Your task to perform on an android device: toggle show notifications on the lock screen Image 0: 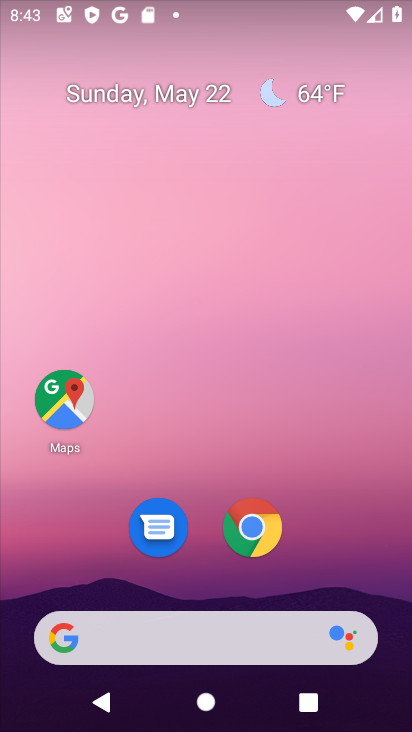
Step 0: drag from (189, 562) to (238, 86)
Your task to perform on an android device: toggle show notifications on the lock screen Image 1: 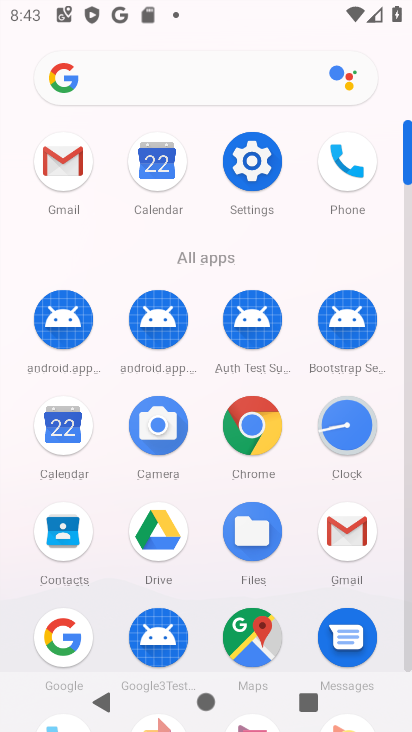
Step 1: click (241, 167)
Your task to perform on an android device: toggle show notifications on the lock screen Image 2: 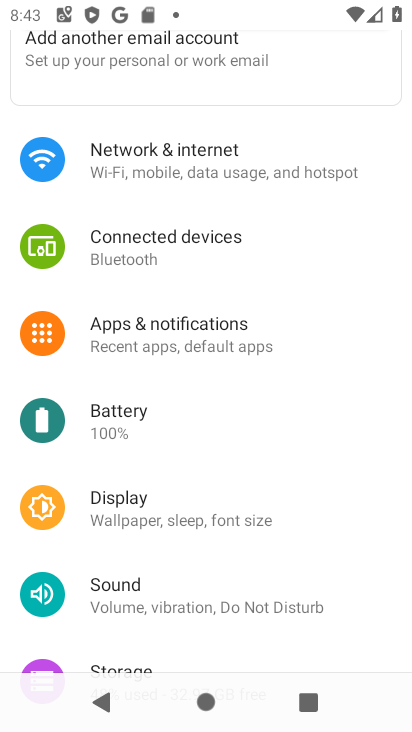
Step 2: click (182, 333)
Your task to perform on an android device: toggle show notifications on the lock screen Image 3: 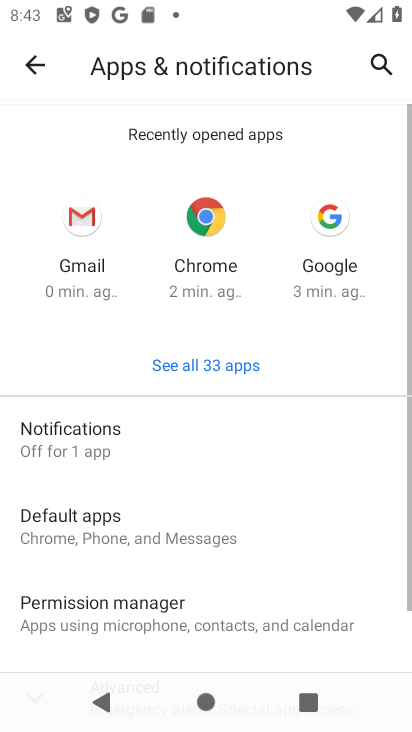
Step 3: click (139, 434)
Your task to perform on an android device: toggle show notifications on the lock screen Image 4: 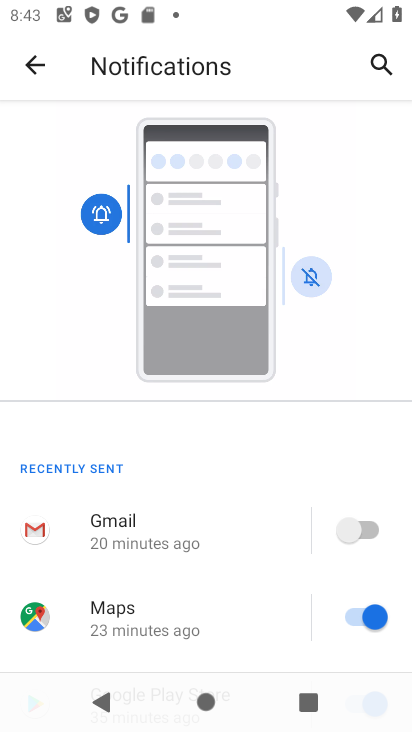
Step 4: drag from (235, 617) to (255, 155)
Your task to perform on an android device: toggle show notifications on the lock screen Image 5: 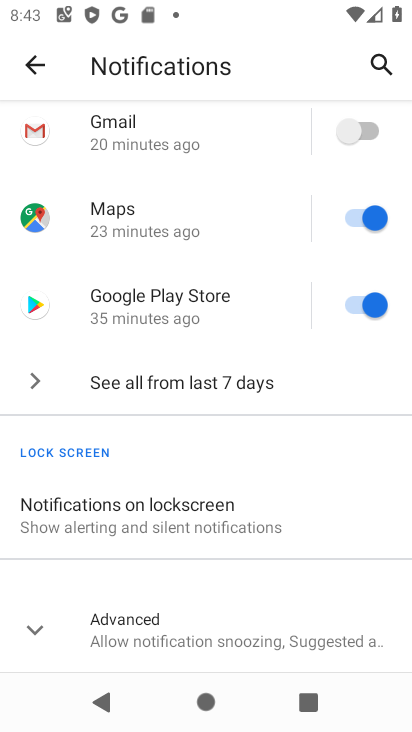
Step 5: click (253, 508)
Your task to perform on an android device: toggle show notifications on the lock screen Image 6: 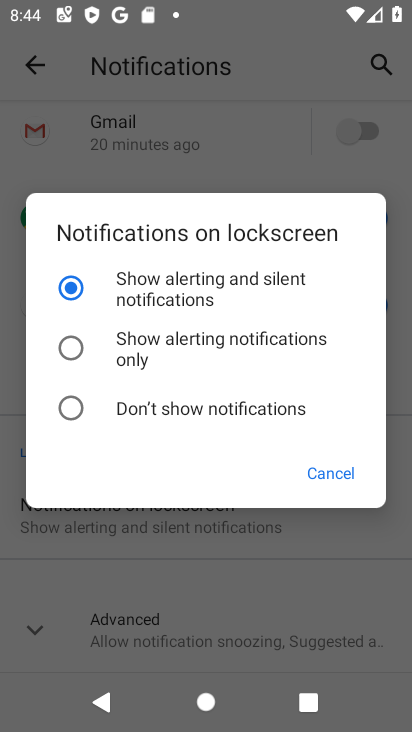
Step 6: click (69, 346)
Your task to perform on an android device: toggle show notifications on the lock screen Image 7: 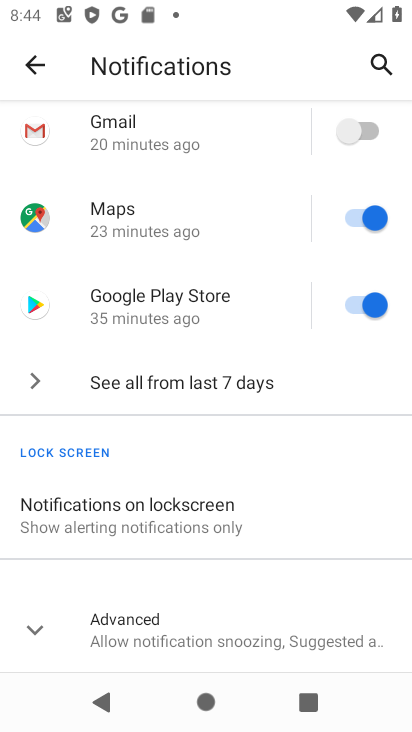
Step 7: task complete